Your task to perform on an android device: Open Chrome and go to settings Image 0: 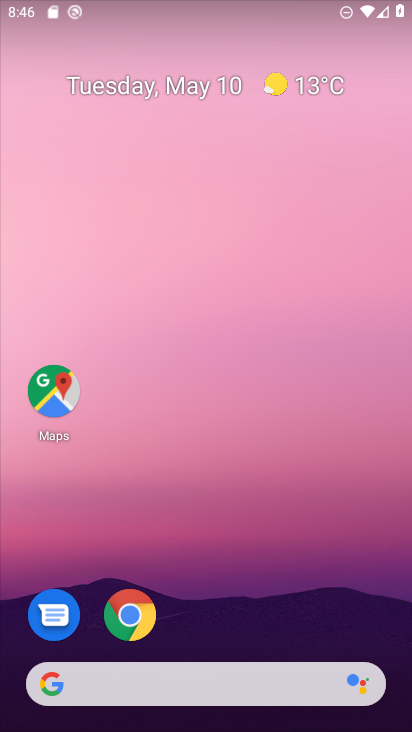
Step 0: click (125, 620)
Your task to perform on an android device: Open Chrome and go to settings Image 1: 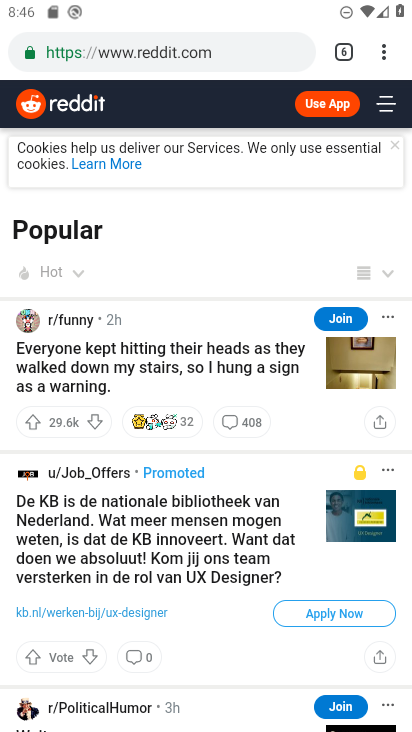
Step 1: click (382, 43)
Your task to perform on an android device: Open Chrome and go to settings Image 2: 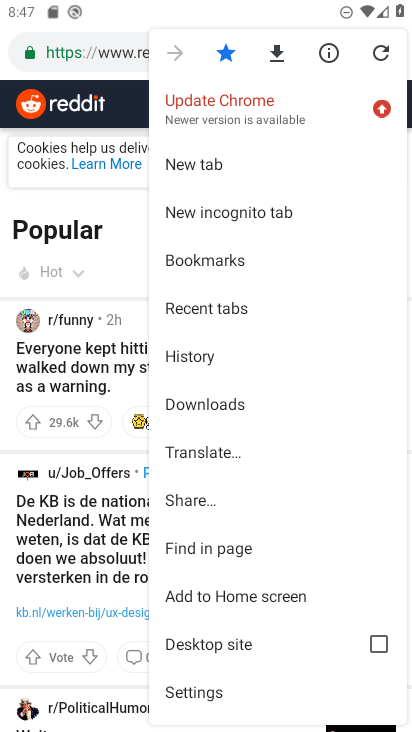
Step 2: click (199, 689)
Your task to perform on an android device: Open Chrome and go to settings Image 3: 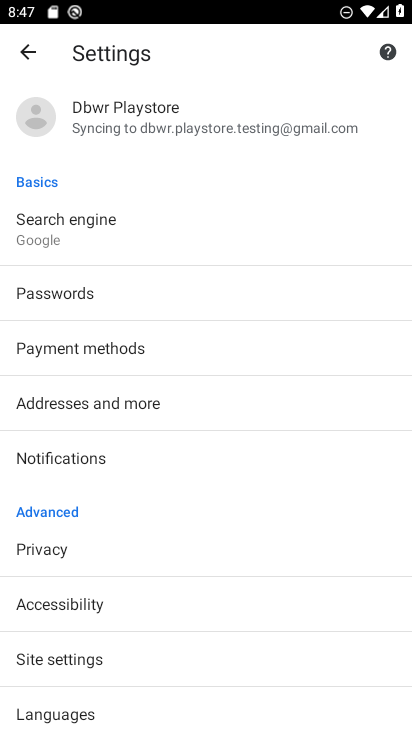
Step 3: task complete